Your task to perform on an android device: Go to Yahoo.com Image 0: 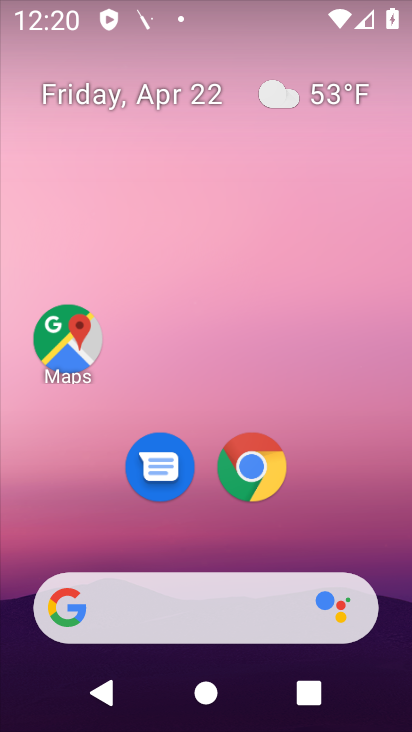
Step 0: click (249, 466)
Your task to perform on an android device: Go to Yahoo.com Image 1: 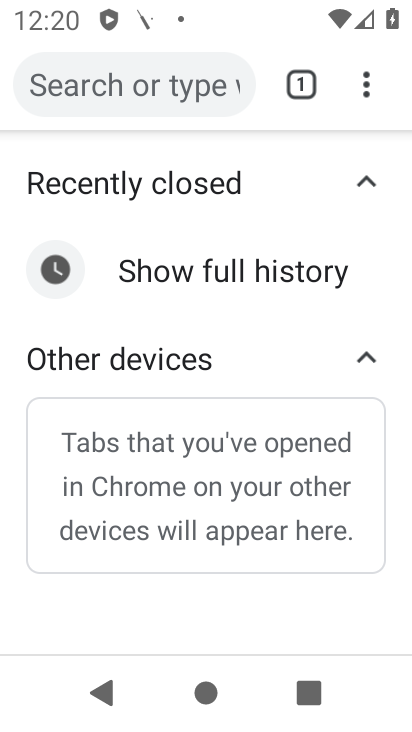
Step 1: click (91, 82)
Your task to perform on an android device: Go to Yahoo.com Image 2: 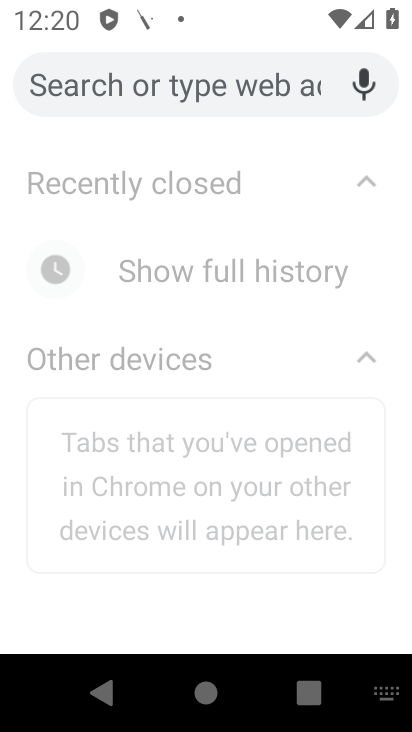
Step 2: type "yahoo.com"
Your task to perform on an android device: Go to Yahoo.com Image 3: 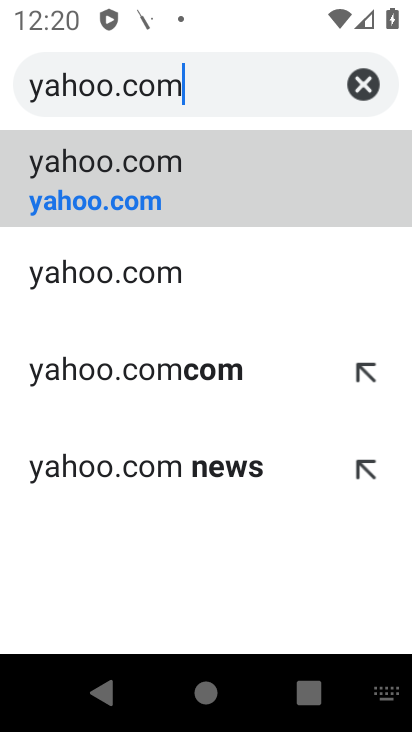
Step 3: click (90, 161)
Your task to perform on an android device: Go to Yahoo.com Image 4: 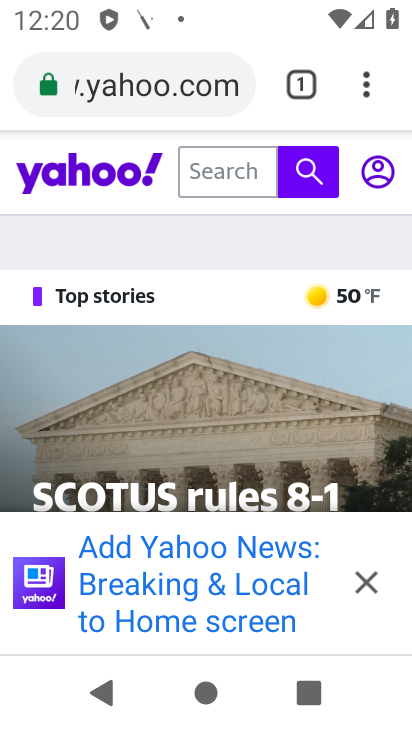
Step 4: task complete